Your task to perform on an android device: Open a new window in Chrome Image 0: 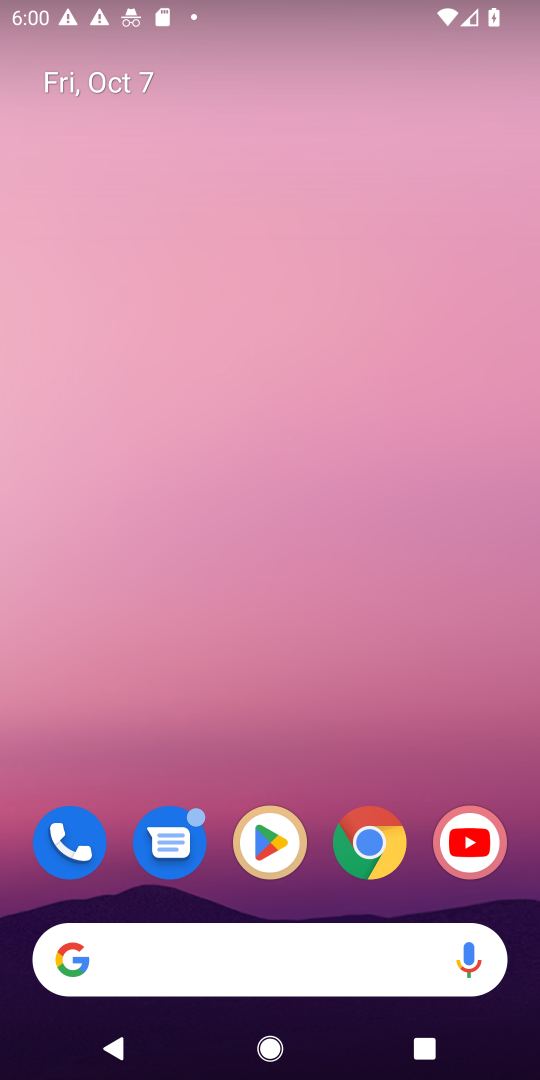
Step 0: click (396, 842)
Your task to perform on an android device: Open a new window in Chrome Image 1: 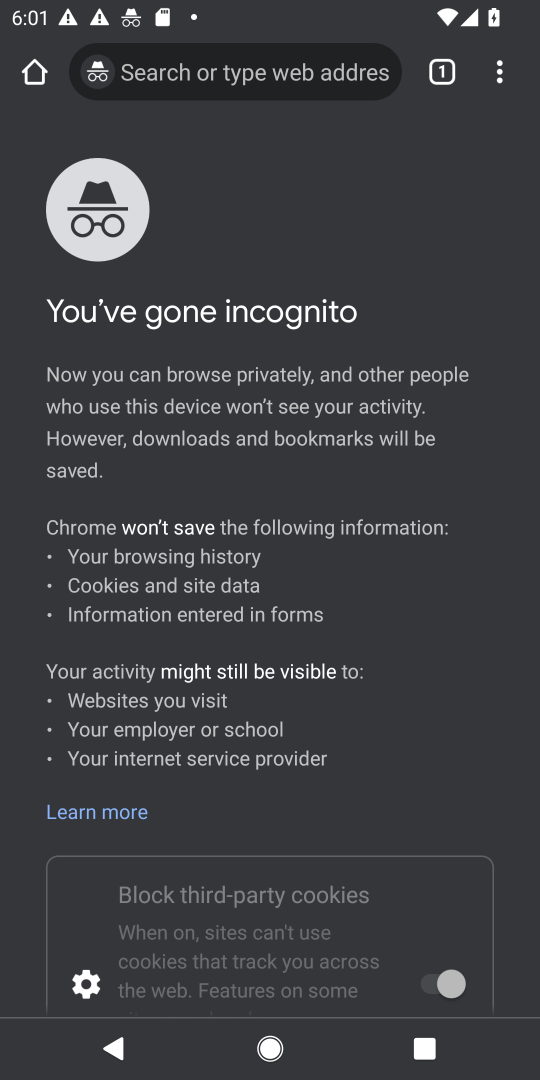
Step 1: click (436, 73)
Your task to perform on an android device: Open a new window in Chrome Image 2: 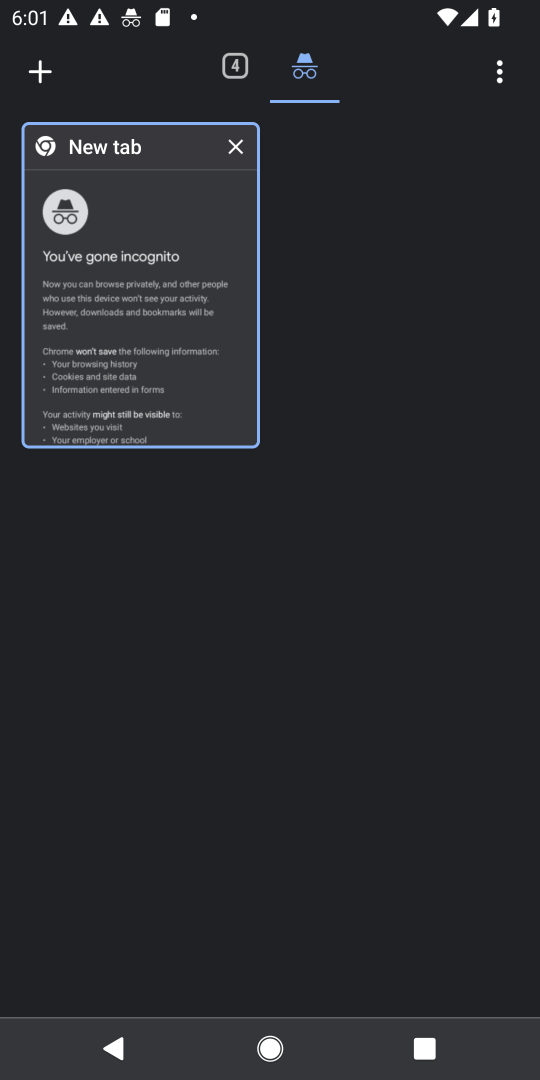
Step 2: click (45, 74)
Your task to perform on an android device: Open a new window in Chrome Image 3: 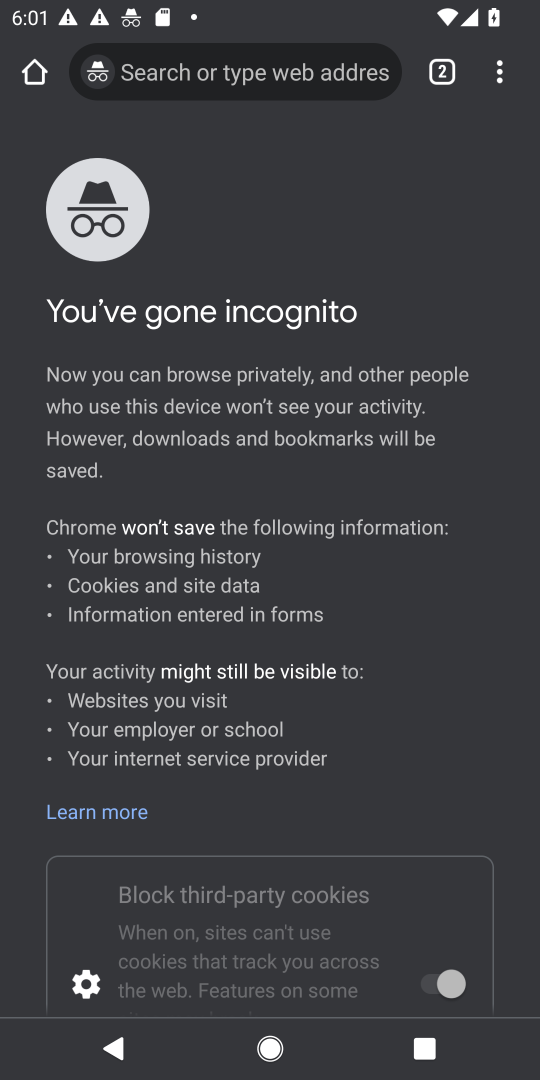
Step 3: task complete